Your task to perform on an android device: Open wifi settings Image 0: 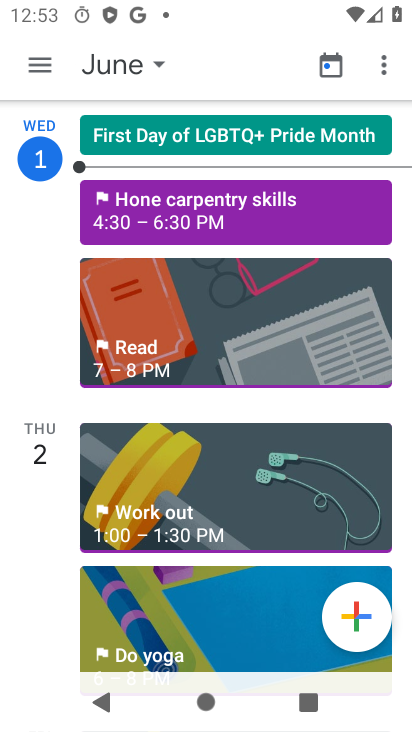
Step 0: press home button
Your task to perform on an android device: Open wifi settings Image 1: 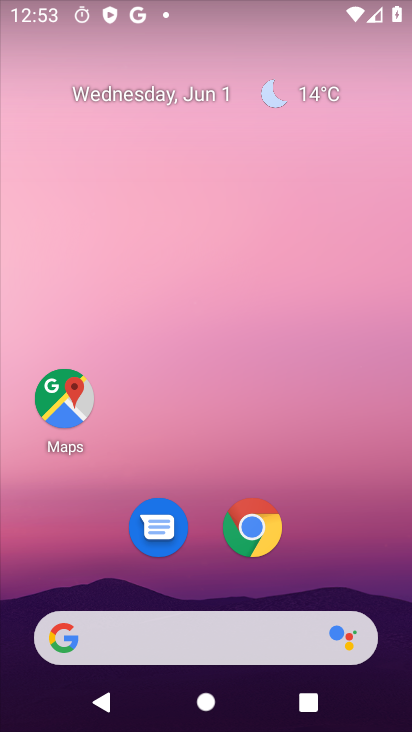
Step 1: drag from (224, 521) to (307, 128)
Your task to perform on an android device: Open wifi settings Image 2: 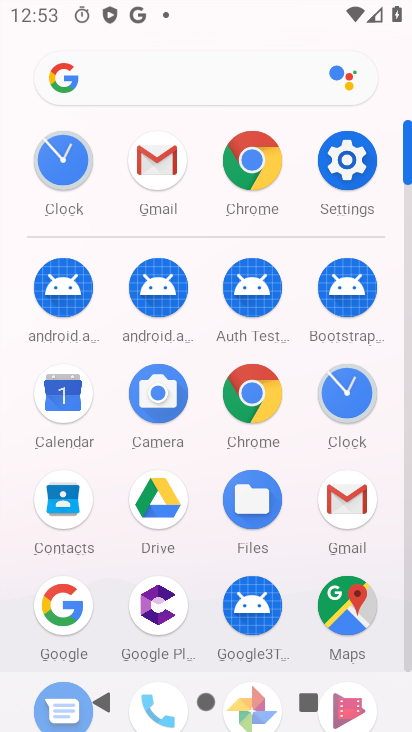
Step 2: click (339, 182)
Your task to perform on an android device: Open wifi settings Image 3: 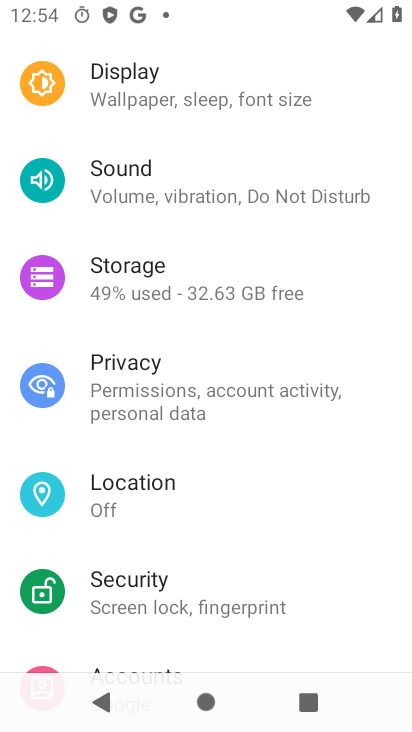
Step 3: drag from (231, 201) to (157, 563)
Your task to perform on an android device: Open wifi settings Image 4: 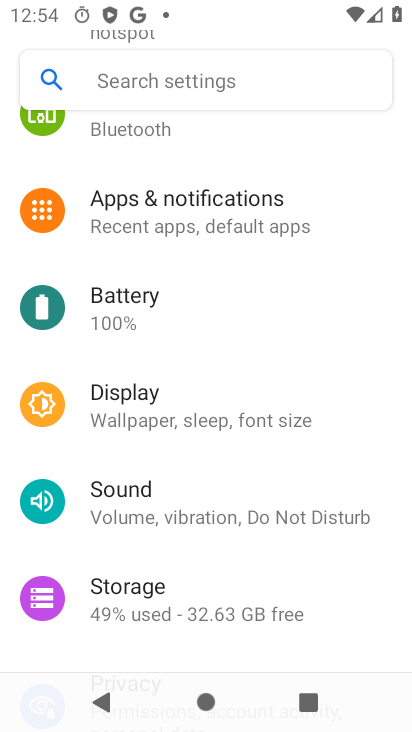
Step 4: drag from (240, 273) to (183, 556)
Your task to perform on an android device: Open wifi settings Image 5: 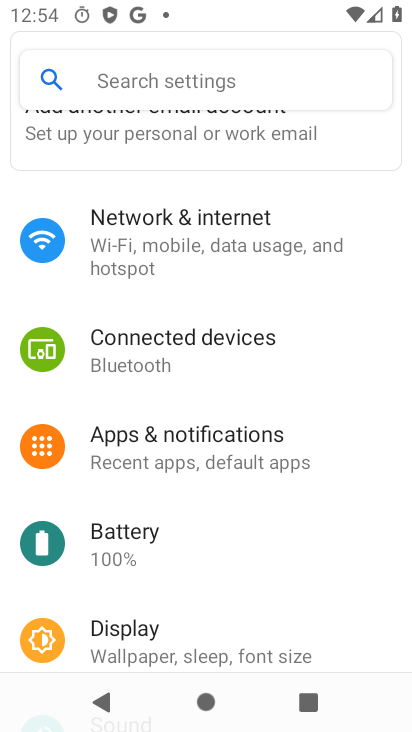
Step 5: drag from (160, 346) to (150, 621)
Your task to perform on an android device: Open wifi settings Image 6: 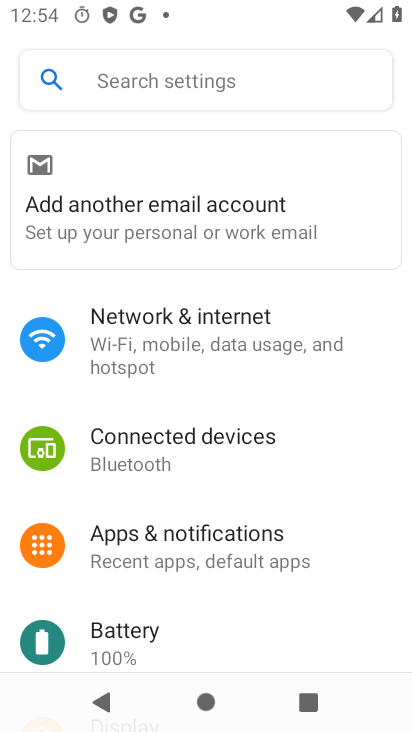
Step 6: click (220, 354)
Your task to perform on an android device: Open wifi settings Image 7: 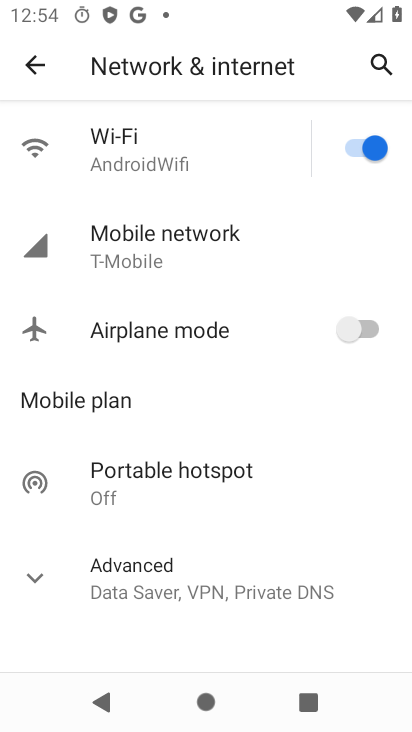
Step 7: click (194, 156)
Your task to perform on an android device: Open wifi settings Image 8: 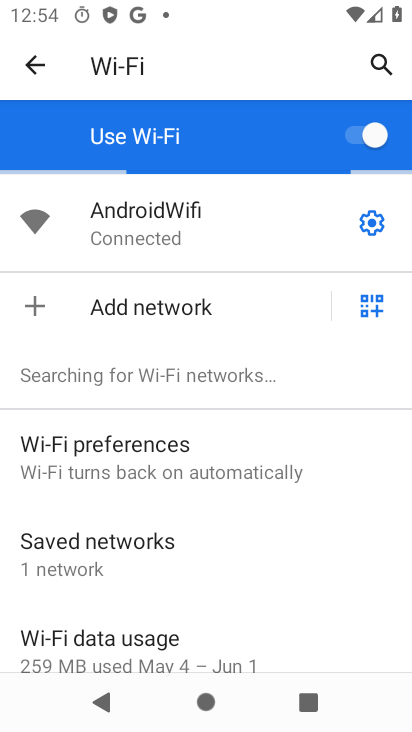
Step 8: task complete